Your task to perform on an android device: open app "Firefox Browser" (install if not already installed) and go to login screen Image 0: 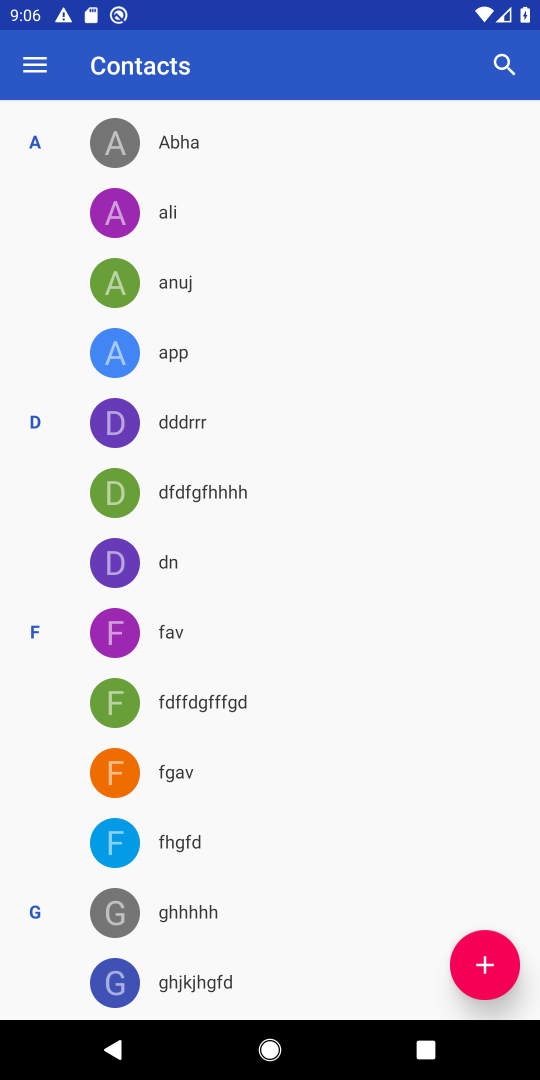
Step 0: press home button
Your task to perform on an android device: open app "Firefox Browser" (install if not already installed) and go to login screen Image 1: 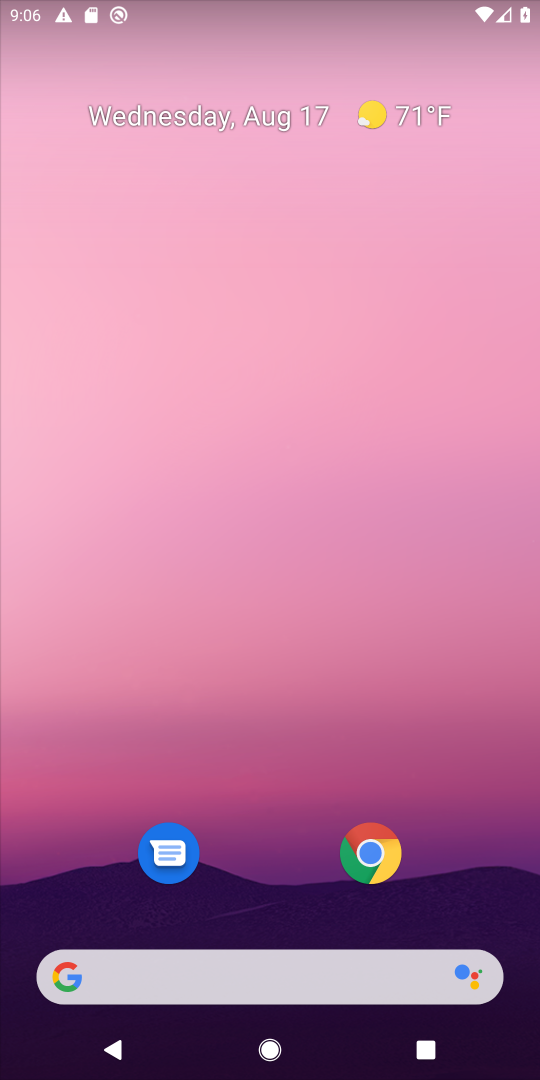
Step 1: drag from (302, 752) to (331, 186)
Your task to perform on an android device: open app "Firefox Browser" (install if not already installed) and go to login screen Image 2: 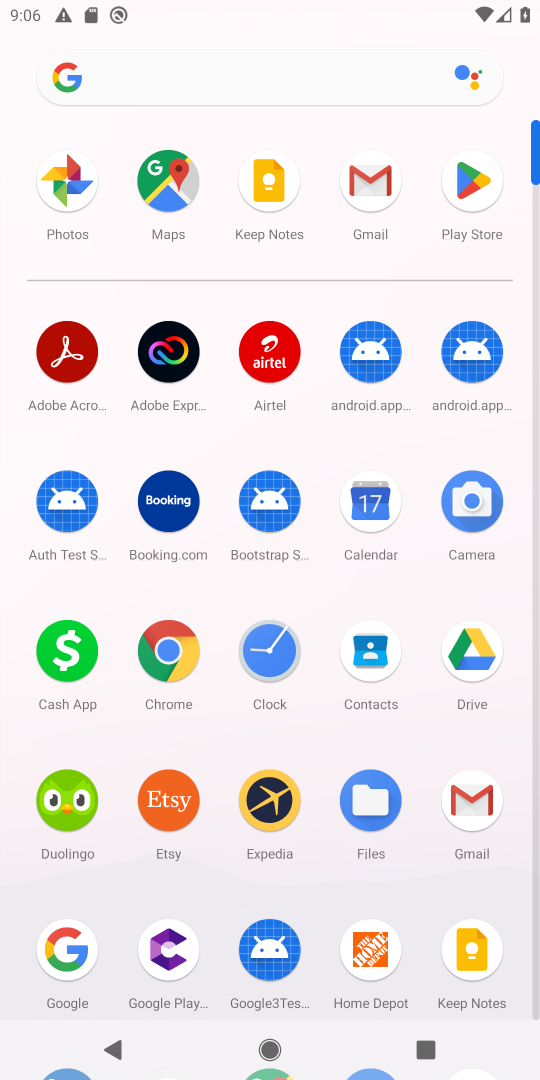
Step 2: click (474, 168)
Your task to perform on an android device: open app "Firefox Browser" (install if not already installed) and go to login screen Image 3: 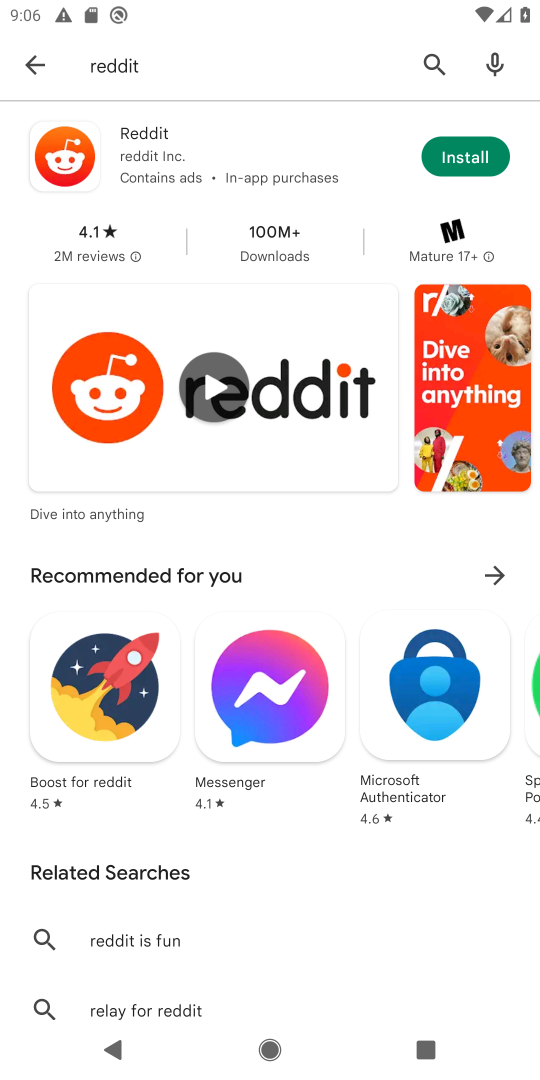
Step 3: click (421, 59)
Your task to perform on an android device: open app "Firefox Browser" (install if not already installed) and go to login screen Image 4: 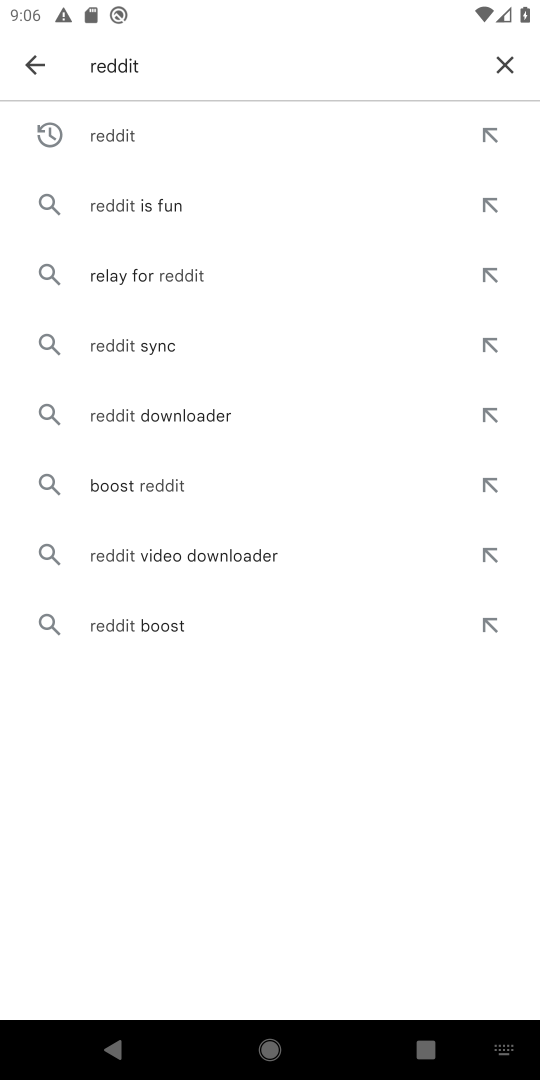
Step 4: click (493, 63)
Your task to perform on an android device: open app "Firefox Browser" (install if not already installed) and go to login screen Image 5: 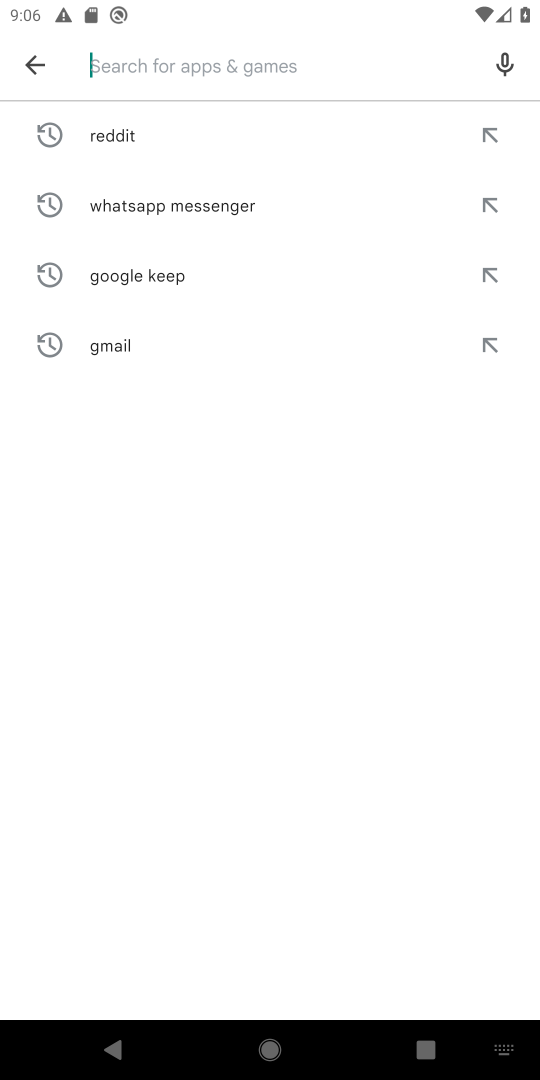
Step 5: type "Firefox Browser"
Your task to perform on an android device: open app "Firefox Browser" (install if not already installed) and go to login screen Image 6: 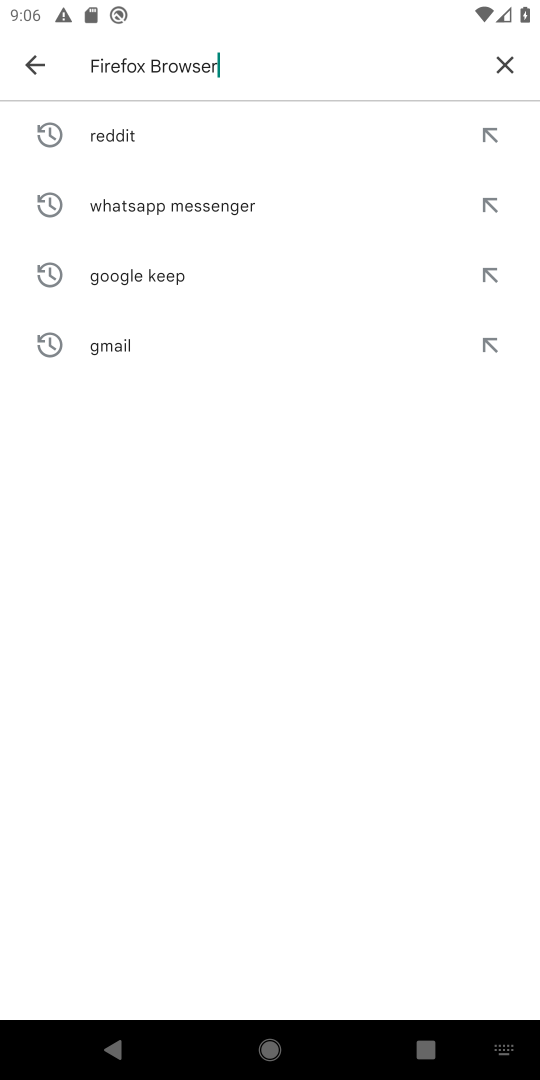
Step 6: type ""
Your task to perform on an android device: open app "Firefox Browser" (install if not already installed) and go to login screen Image 7: 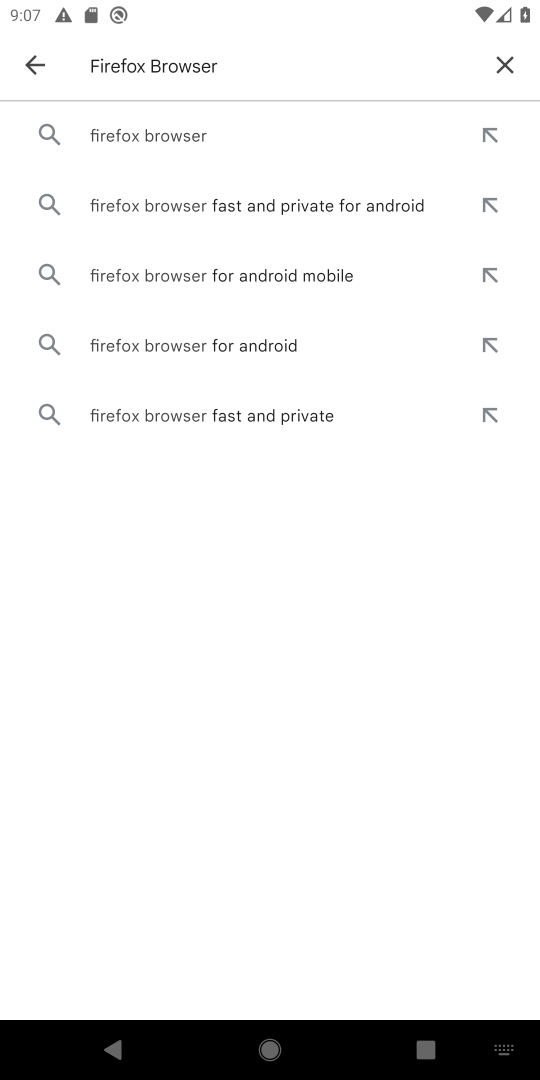
Step 7: click (165, 142)
Your task to perform on an android device: open app "Firefox Browser" (install if not already installed) and go to login screen Image 8: 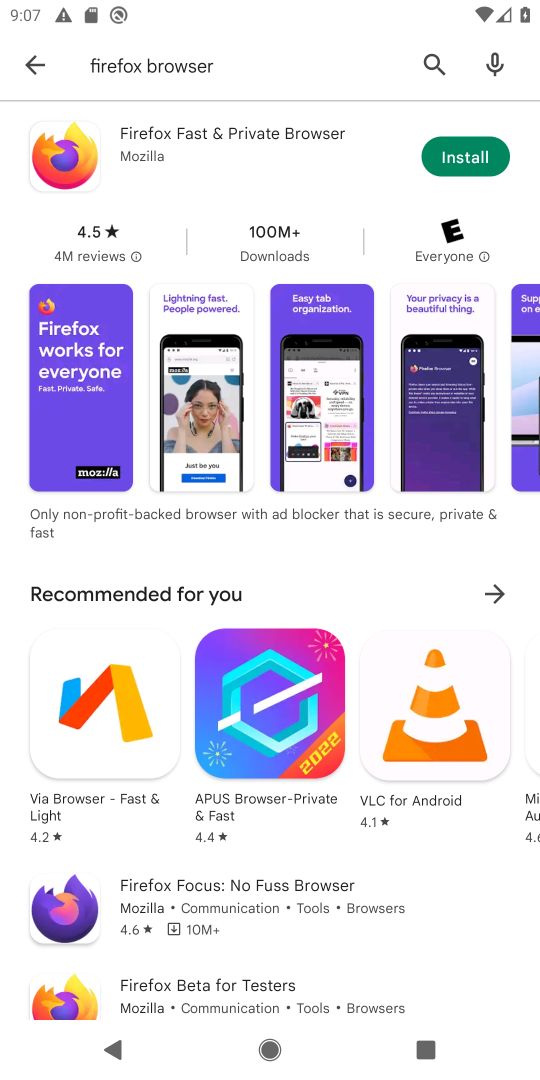
Step 8: click (472, 159)
Your task to perform on an android device: open app "Firefox Browser" (install if not already installed) and go to login screen Image 9: 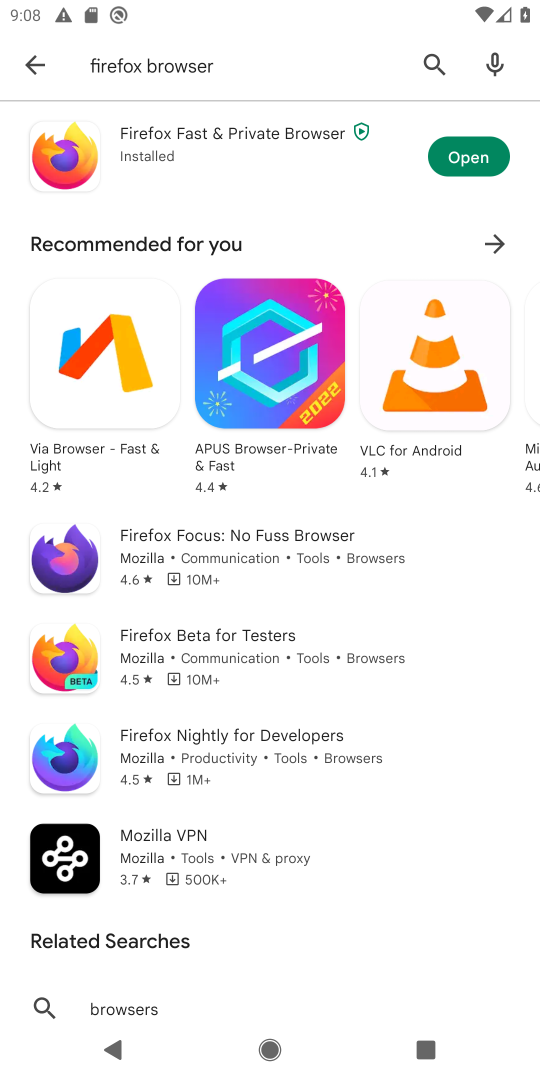
Step 9: click (459, 148)
Your task to perform on an android device: open app "Firefox Browser" (install if not already installed) and go to login screen Image 10: 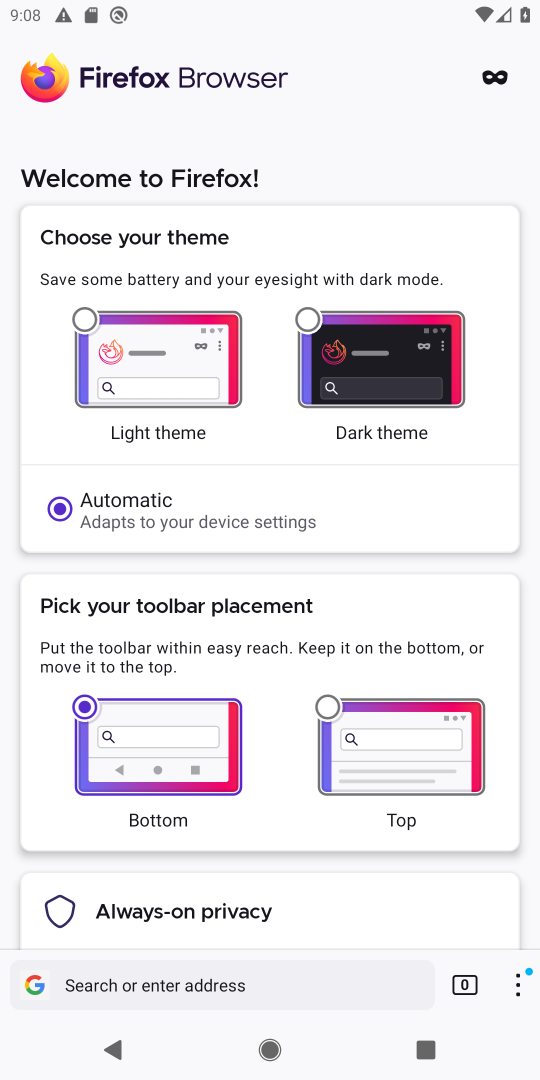
Step 10: task complete